Your task to perform on an android device: turn on showing notifications on the lock screen Image 0: 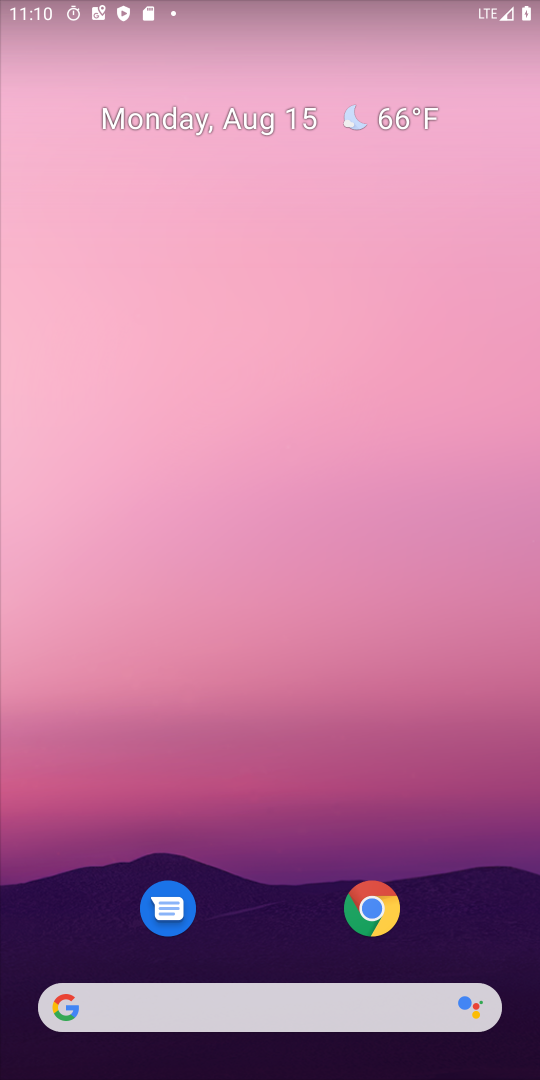
Step 0: drag from (269, 929) to (88, 230)
Your task to perform on an android device: turn on showing notifications on the lock screen Image 1: 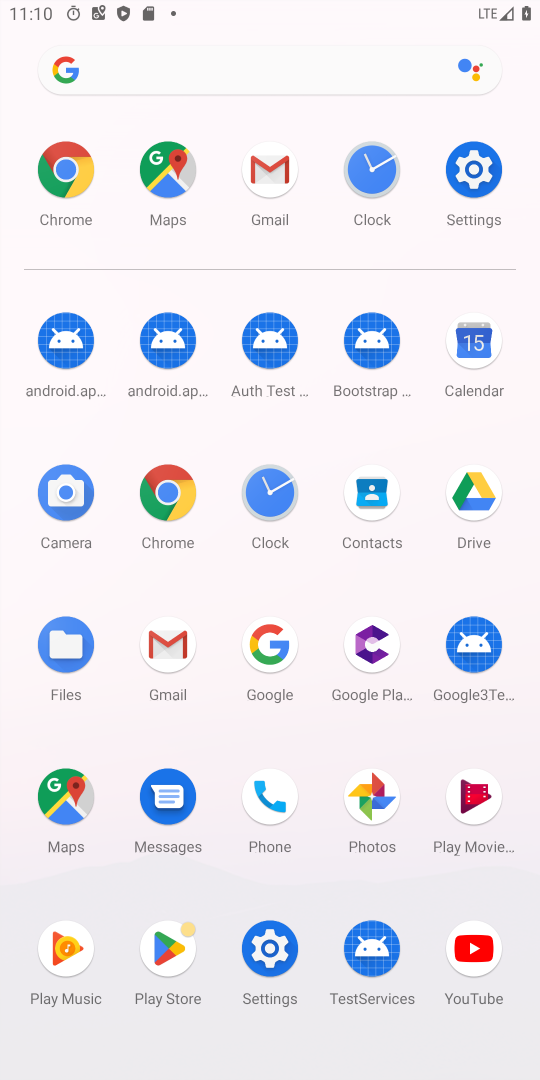
Step 1: click (472, 175)
Your task to perform on an android device: turn on showing notifications on the lock screen Image 2: 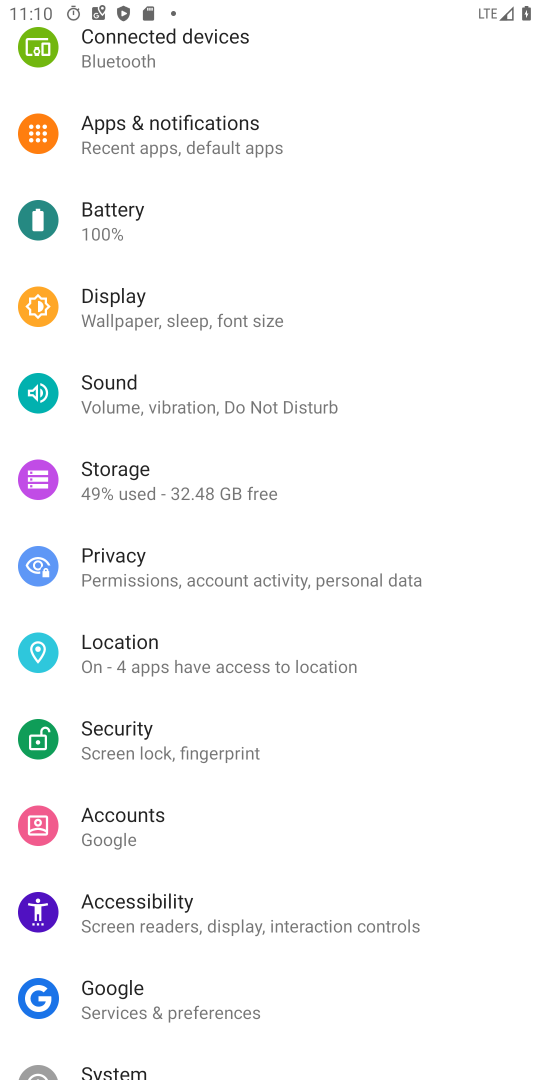
Step 2: click (267, 140)
Your task to perform on an android device: turn on showing notifications on the lock screen Image 3: 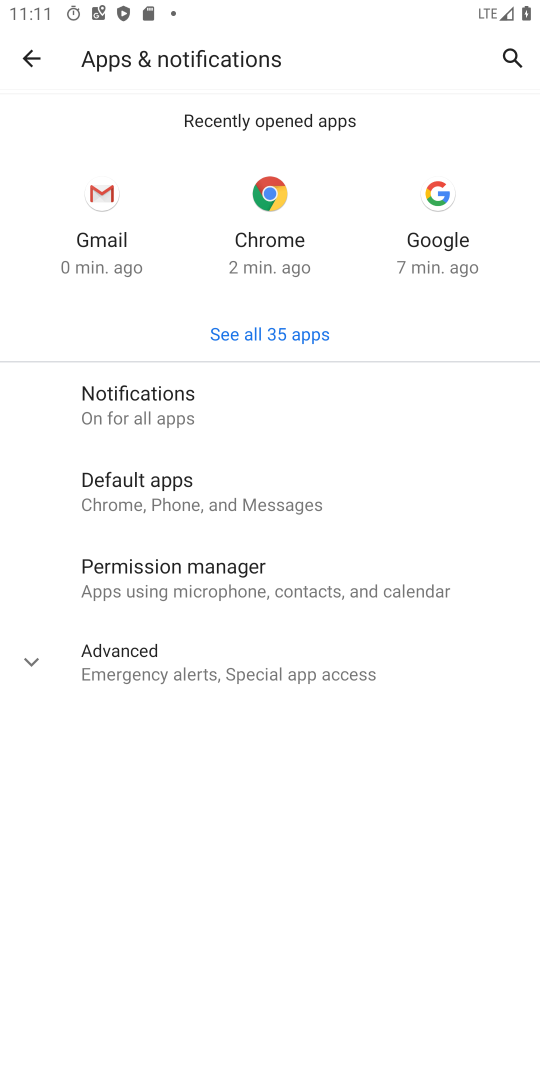
Step 3: click (163, 685)
Your task to perform on an android device: turn on showing notifications on the lock screen Image 4: 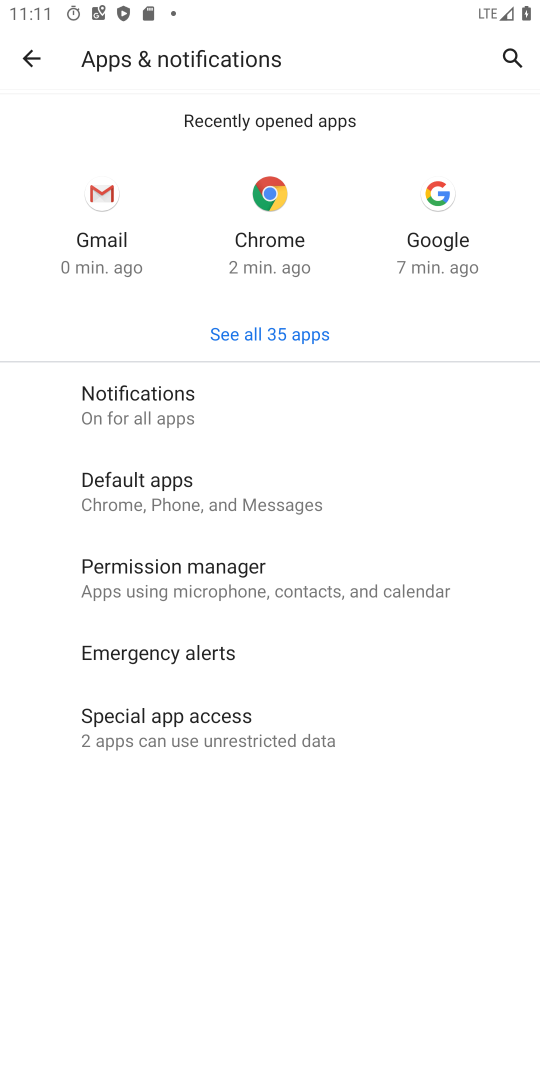
Step 4: click (192, 381)
Your task to perform on an android device: turn on showing notifications on the lock screen Image 5: 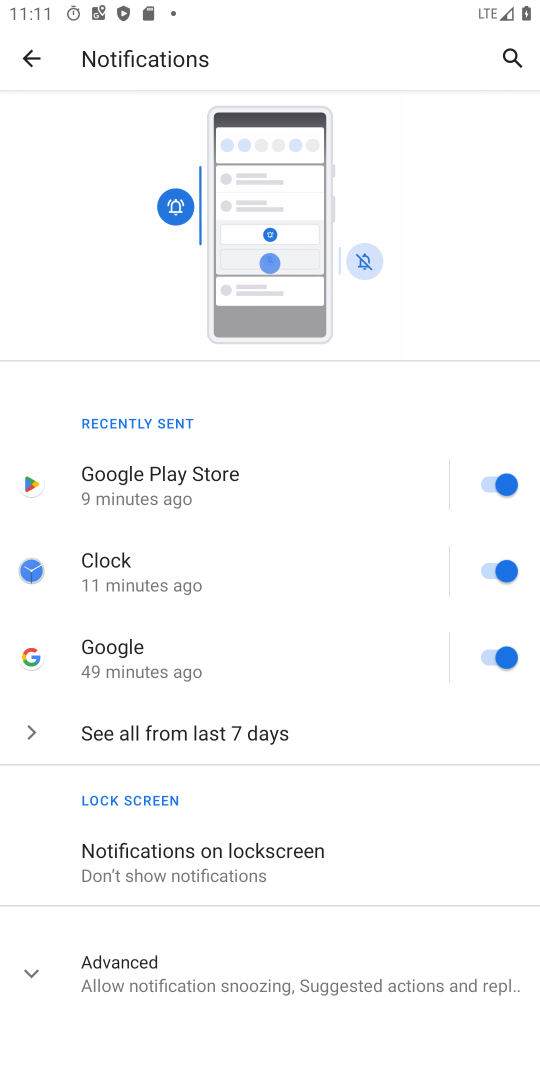
Step 5: click (149, 873)
Your task to perform on an android device: turn on showing notifications on the lock screen Image 6: 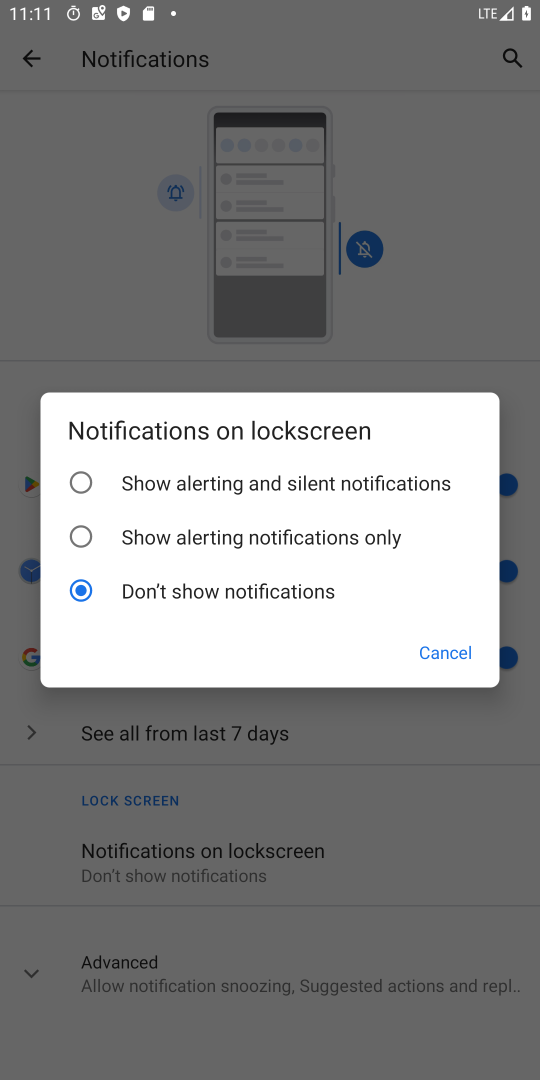
Step 6: click (397, 478)
Your task to perform on an android device: turn on showing notifications on the lock screen Image 7: 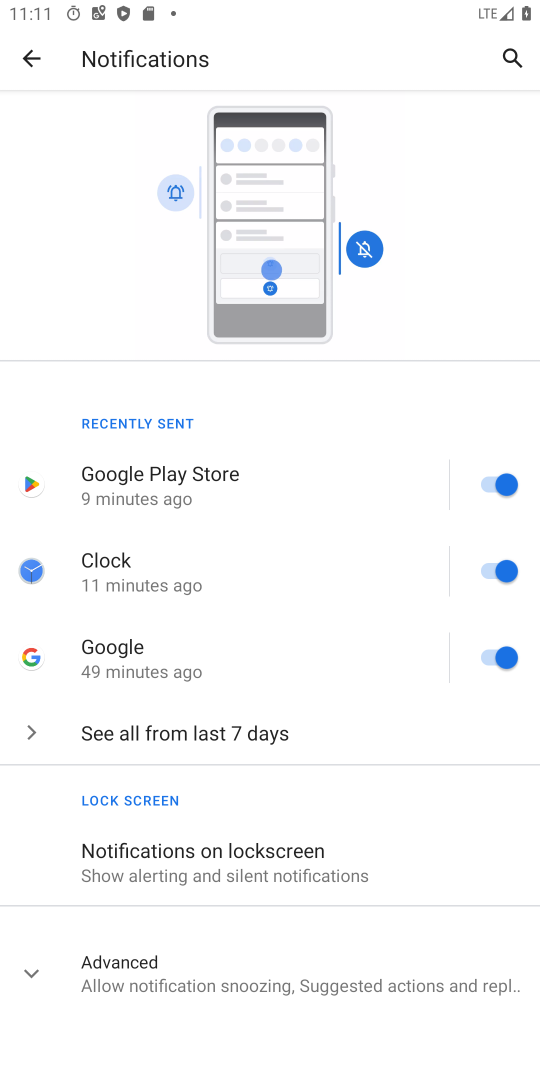
Step 7: task complete